Your task to perform on an android device: Search for pizza restaurants on Maps Image 0: 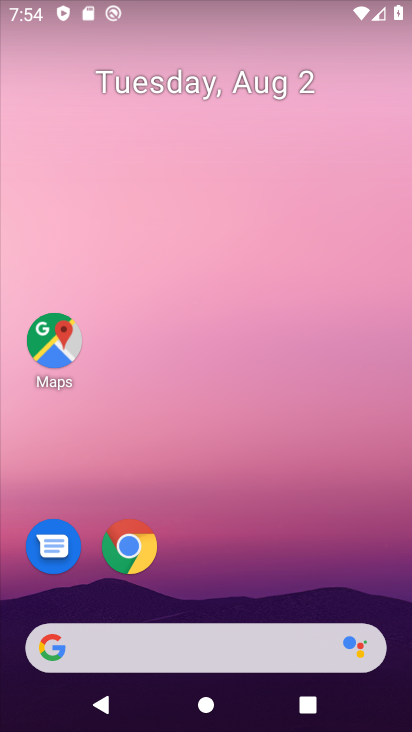
Step 0: click (55, 352)
Your task to perform on an android device: Search for pizza restaurants on Maps Image 1: 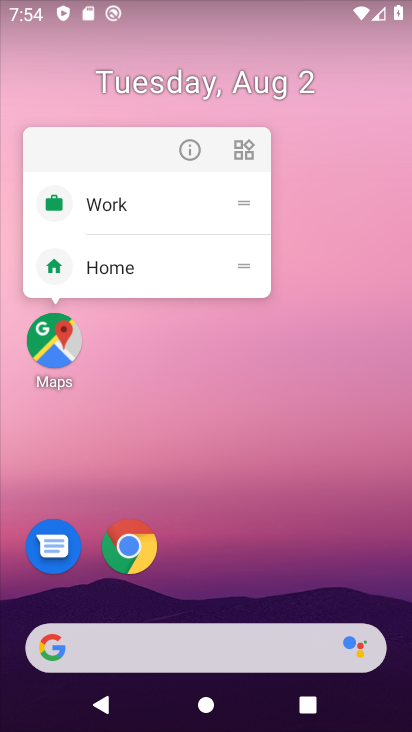
Step 1: click (61, 345)
Your task to perform on an android device: Search for pizza restaurants on Maps Image 2: 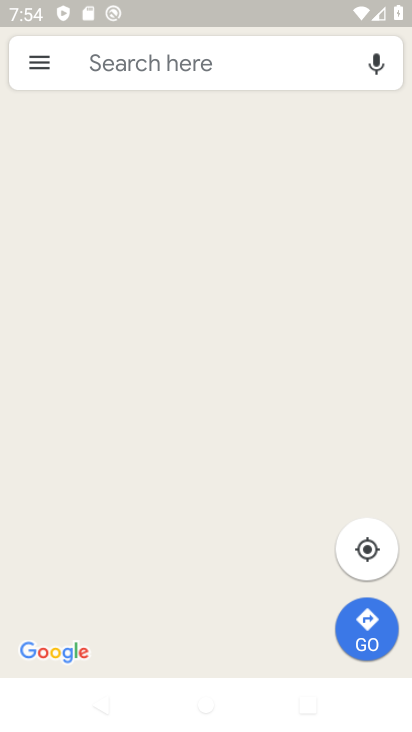
Step 2: click (186, 72)
Your task to perform on an android device: Search for pizza restaurants on Maps Image 3: 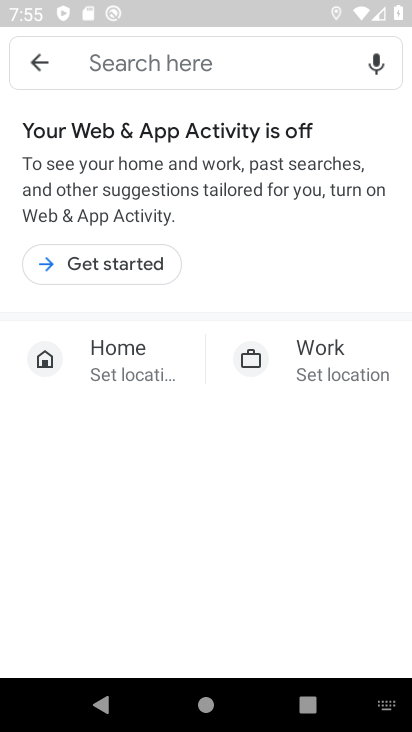
Step 3: type "Pizza restaurants"
Your task to perform on an android device: Search for pizza restaurants on Maps Image 4: 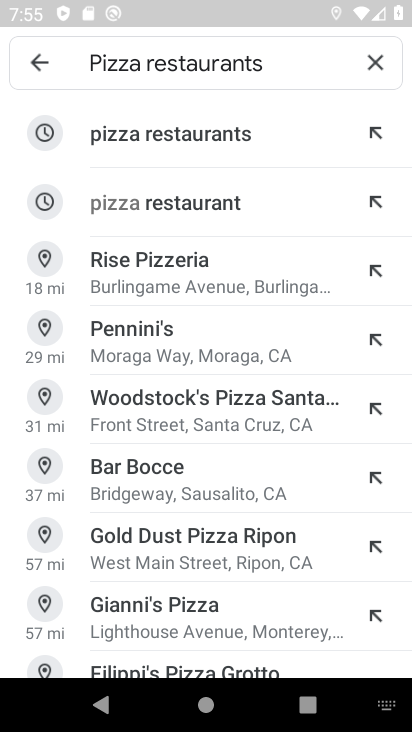
Step 4: click (181, 120)
Your task to perform on an android device: Search for pizza restaurants on Maps Image 5: 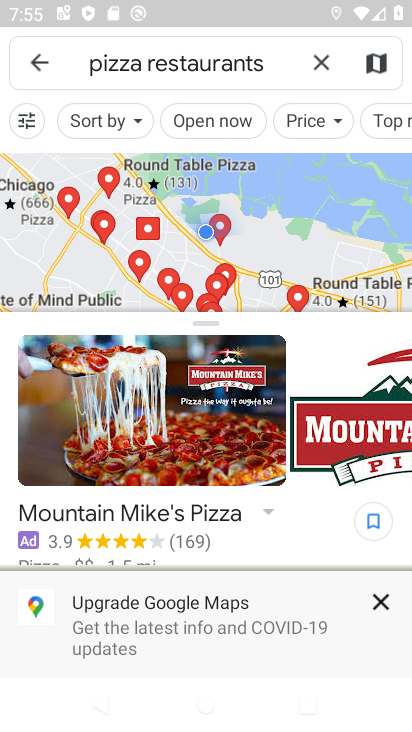
Step 5: click (378, 604)
Your task to perform on an android device: Search for pizza restaurants on Maps Image 6: 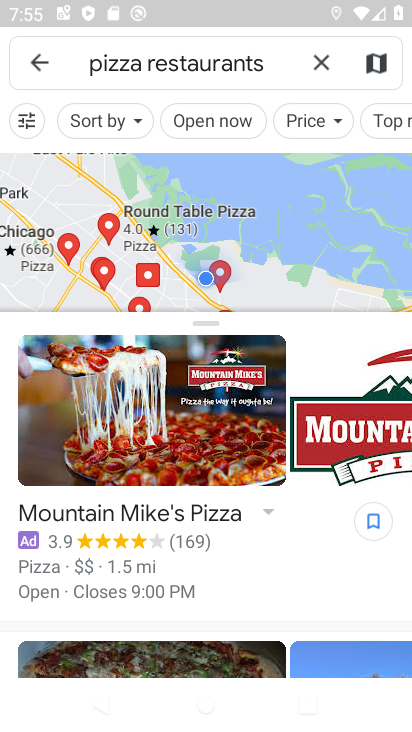
Step 6: task complete